Your task to perform on an android device: show emergency info Image 0: 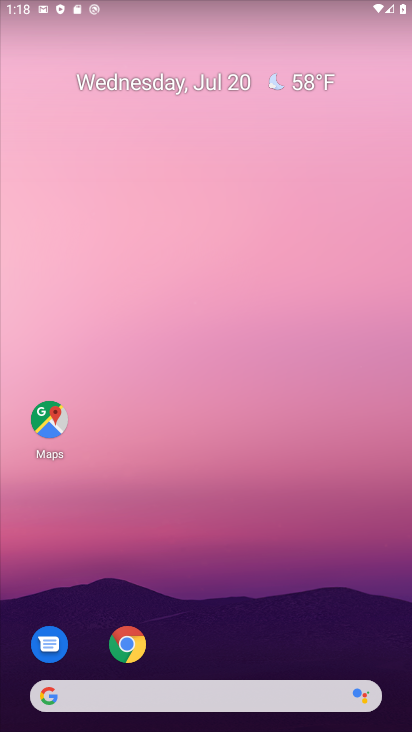
Step 0: drag from (198, 662) to (184, 84)
Your task to perform on an android device: show emergency info Image 1: 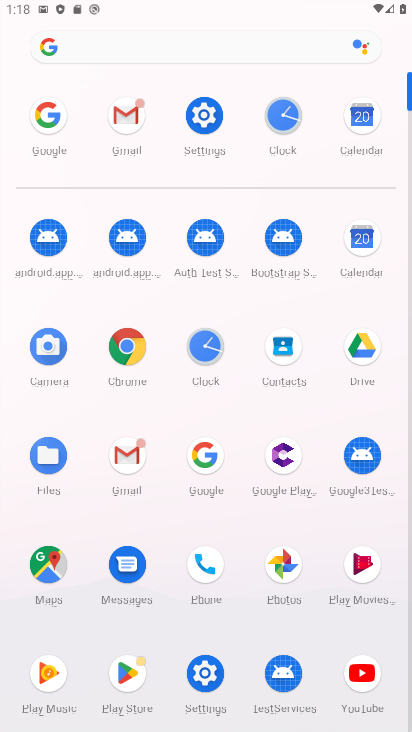
Step 1: click (203, 119)
Your task to perform on an android device: show emergency info Image 2: 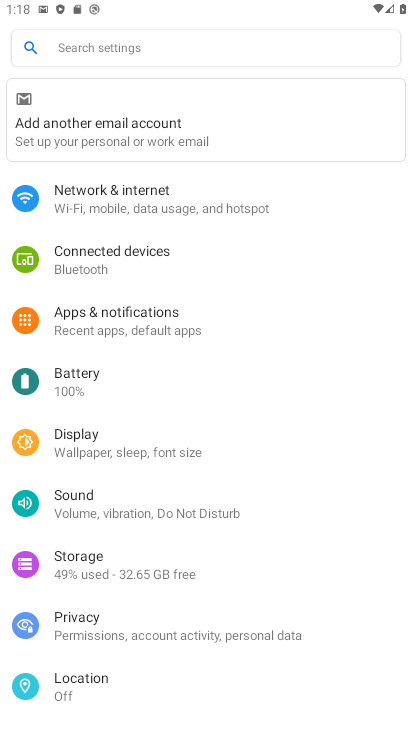
Step 2: drag from (200, 637) to (246, 120)
Your task to perform on an android device: show emergency info Image 3: 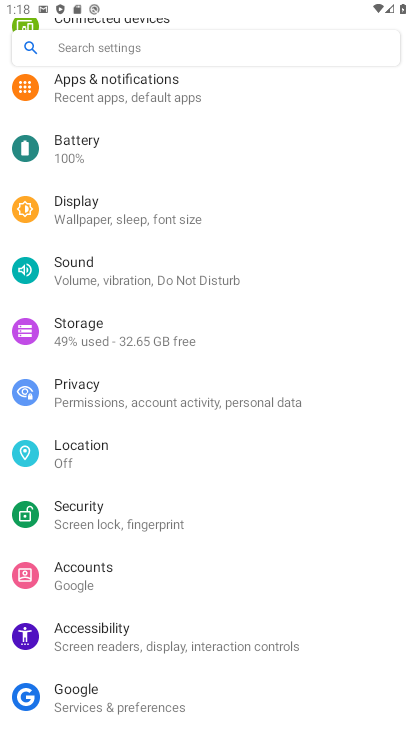
Step 3: drag from (156, 690) to (186, 238)
Your task to perform on an android device: show emergency info Image 4: 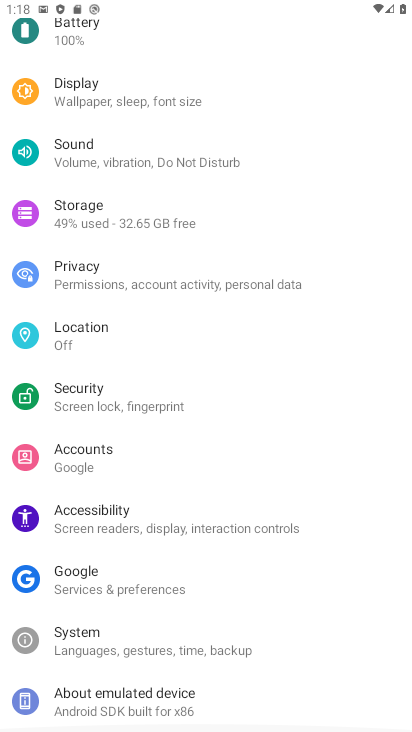
Step 4: click (163, 701)
Your task to perform on an android device: show emergency info Image 5: 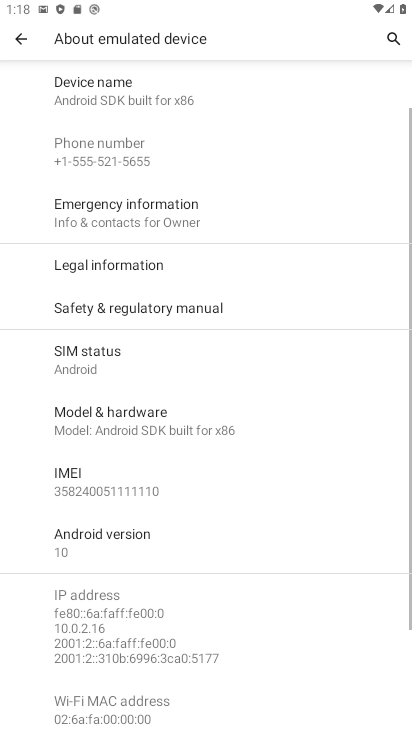
Step 5: click (137, 217)
Your task to perform on an android device: show emergency info Image 6: 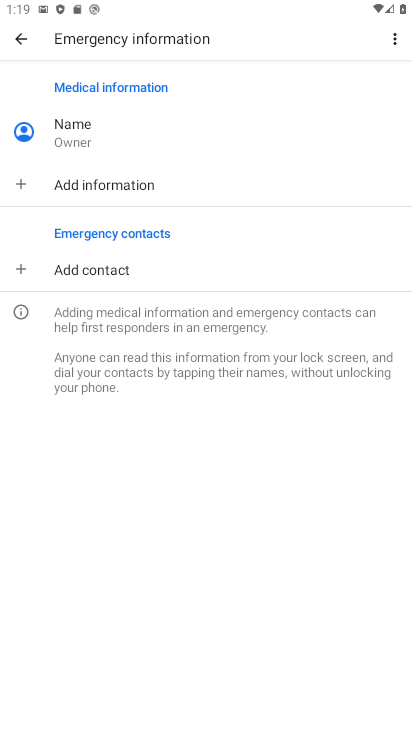
Step 6: task complete